Your task to perform on an android device: set the timer Image 0: 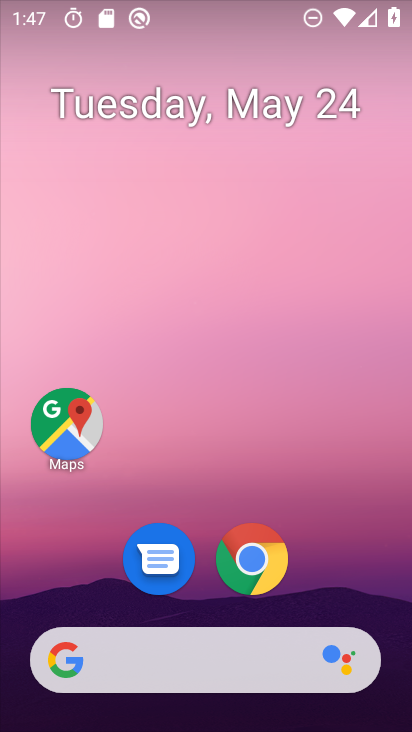
Step 0: drag from (393, 647) to (386, 167)
Your task to perform on an android device: set the timer Image 1: 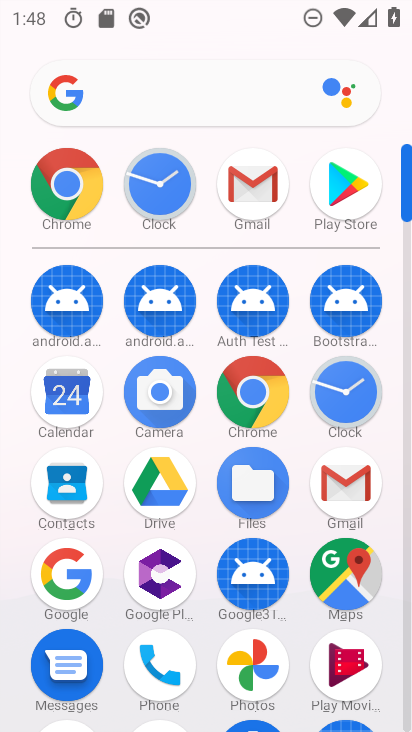
Step 1: click (356, 388)
Your task to perform on an android device: set the timer Image 2: 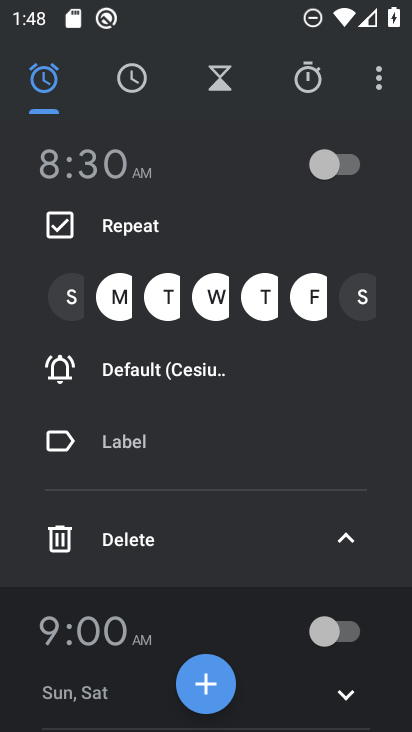
Step 2: click (314, 79)
Your task to perform on an android device: set the timer Image 3: 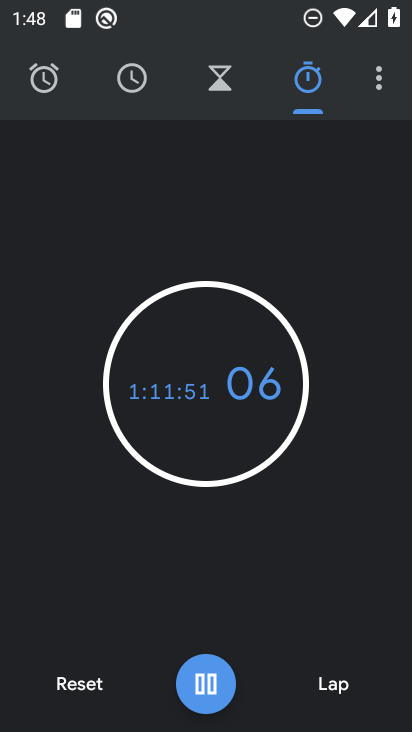
Step 3: click (74, 687)
Your task to perform on an android device: set the timer Image 4: 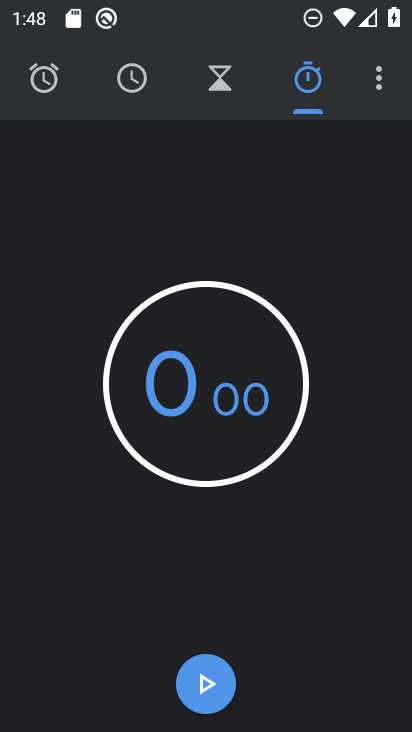
Step 4: click (220, 676)
Your task to perform on an android device: set the timer Image 5: 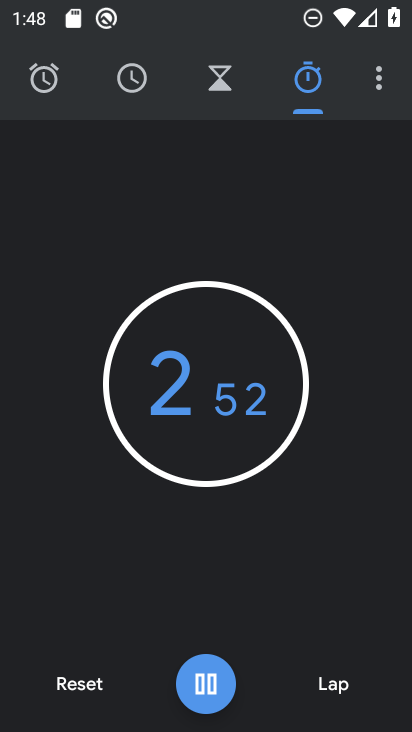
Step 5: task complete